Your task to perform on an android device: Clear all items from cart on ebay. Add "logitech g910" to the cart on ebay Image 0: 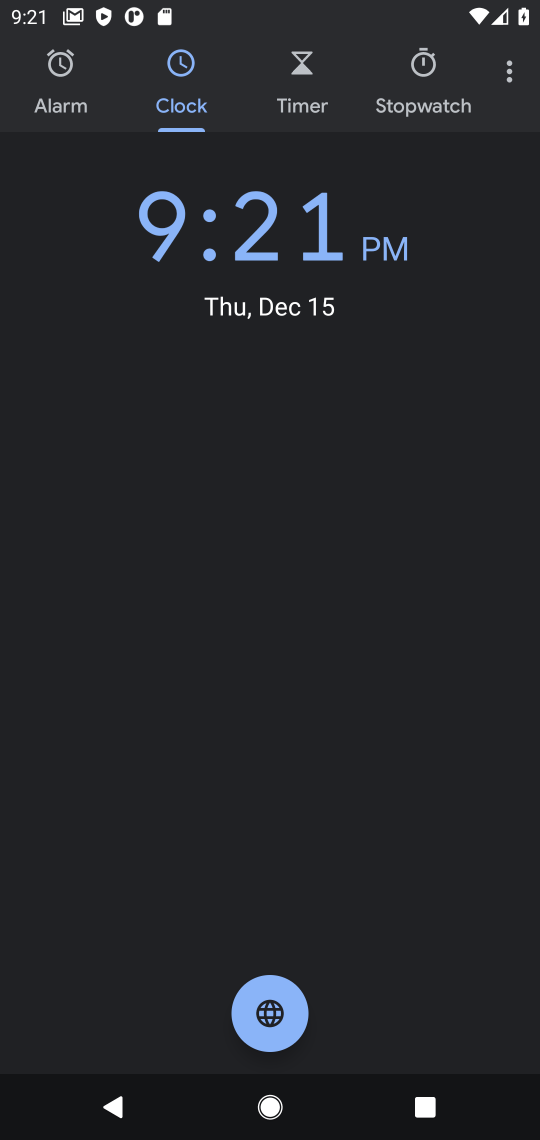
Step 0: press home button
Your task to perform on an android device: Clear all items from cart on ebay. Add "logitech g910" to the cart on ebay Image 1: 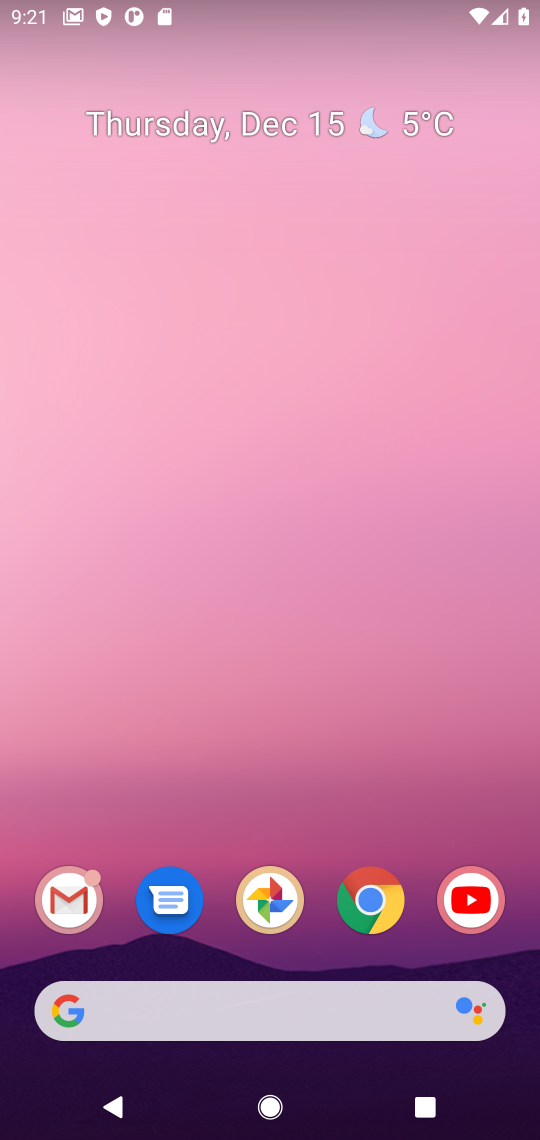
Step 1: click (399, 921)
Your task to perform on an android device: Clear all items from cart on ebay. Add "logitech g910" to the cart on ebay Image 2: 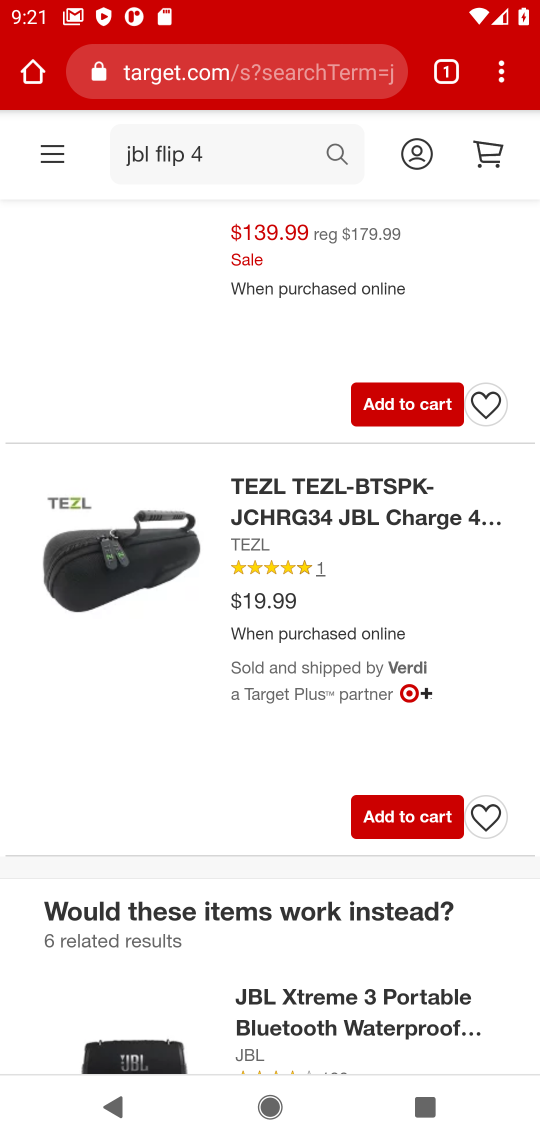
Step 2: click (191, 86)
Your task to perform on an android device: Clear all items from cart on ebay. Add "logitech g910" to the cart on ebay Image 3: 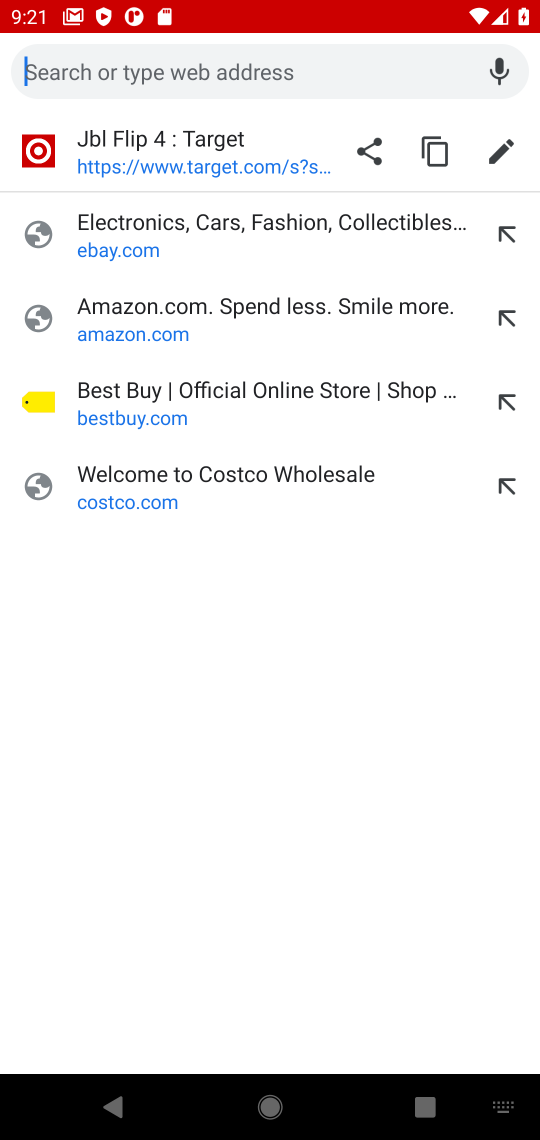
Step 3: click (129, 251)
Your task to perform on an android device: Clear all items from cart on ebay. Add "logitech g910" to the cart on ebay Image 4: 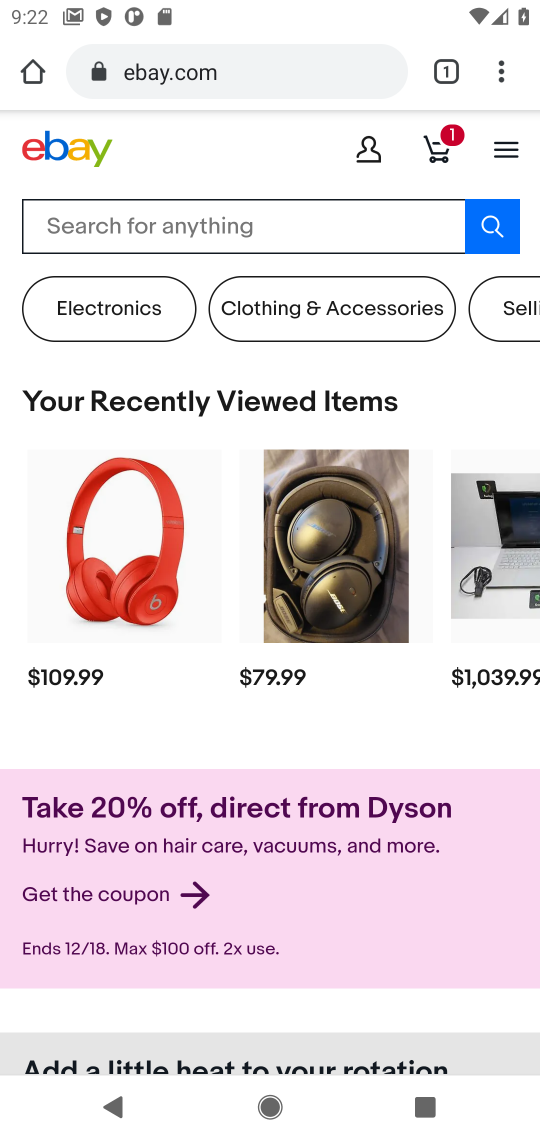
Step 4: click (256, 236)
Your task to perform on an android device: Clear all items from cart on ebay. Add "logitech g910" to the cart on ebay Image 5: 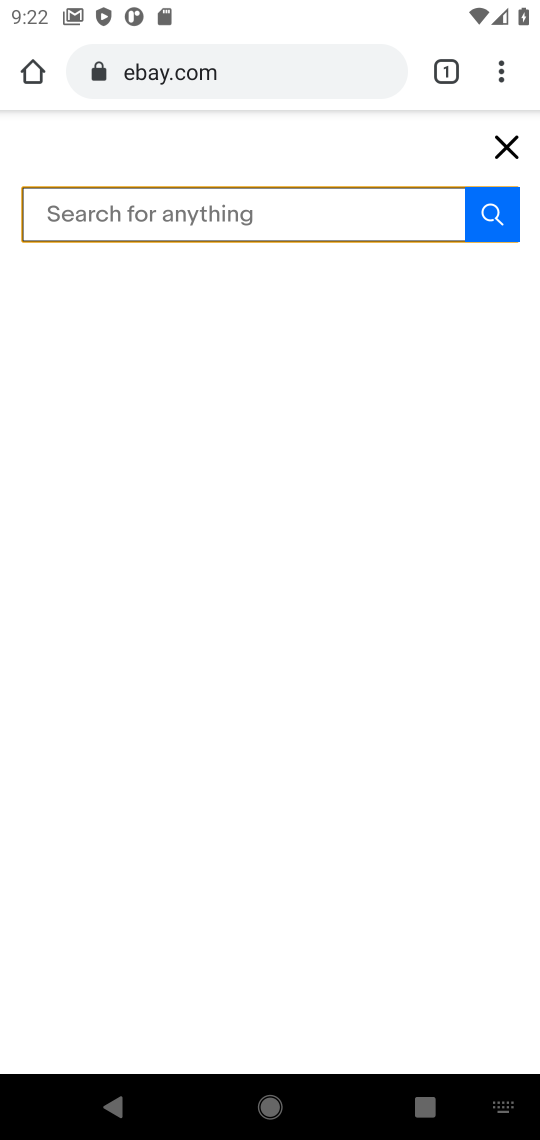
Step 5: click (218, 237)
Your task to perform on an android device: Clear all items from cart on ebay. Add "logitech g910" to the cart on ebay Image 6: 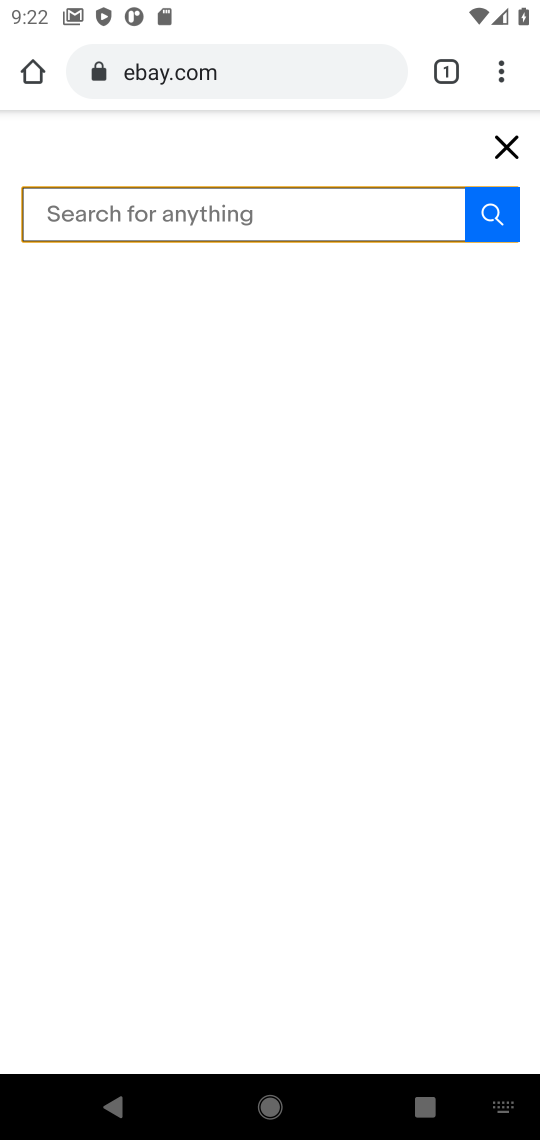
Step 6: type "logitech g910"
Your task to perform on an android device: Clear all items from cart on ebay. Add "logitech g910" to the cart on ebay Image 7: 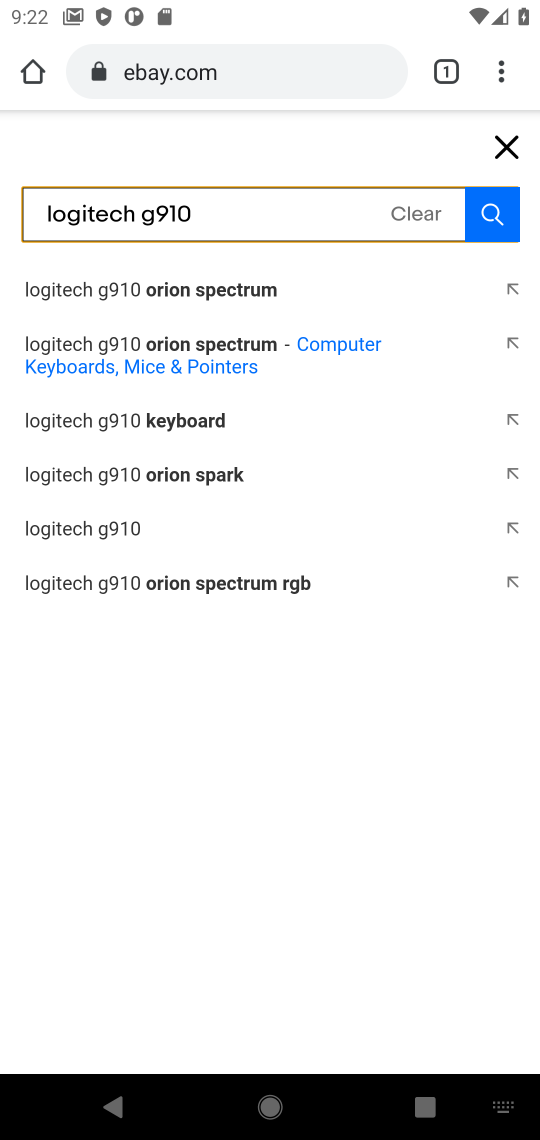
Step 7: click (487, 227)
Your task to perform on an android device: Clear all items from cart on ebay. Add "logitech g910" to the cart on ebay Image 8: 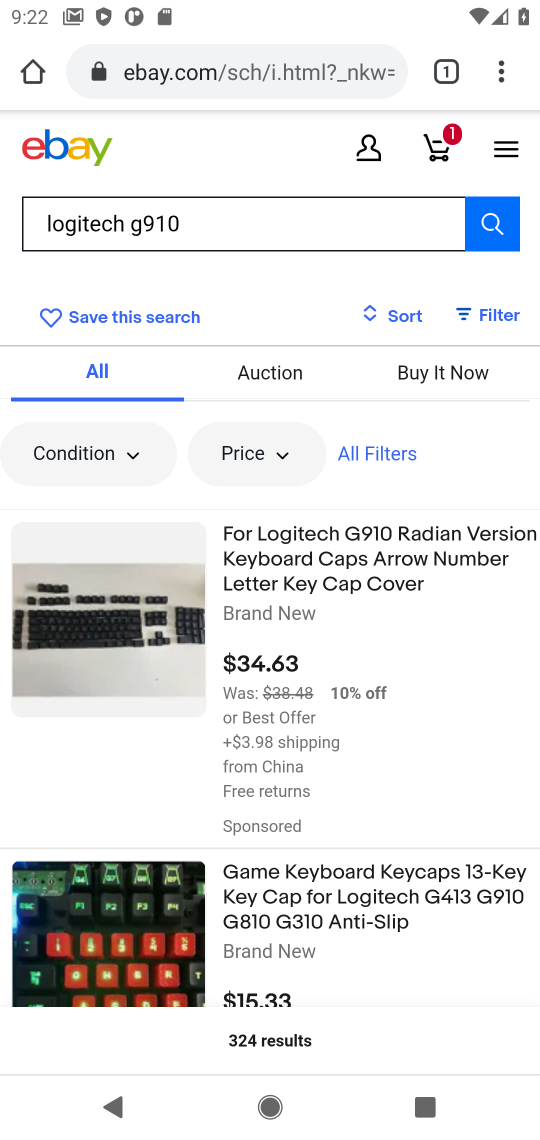
Step 8: click (311, 594)
Your task to perform on an android device: Clear all items from cart on ebay. Add "logitech g910" to the cart on ebay Image 9: 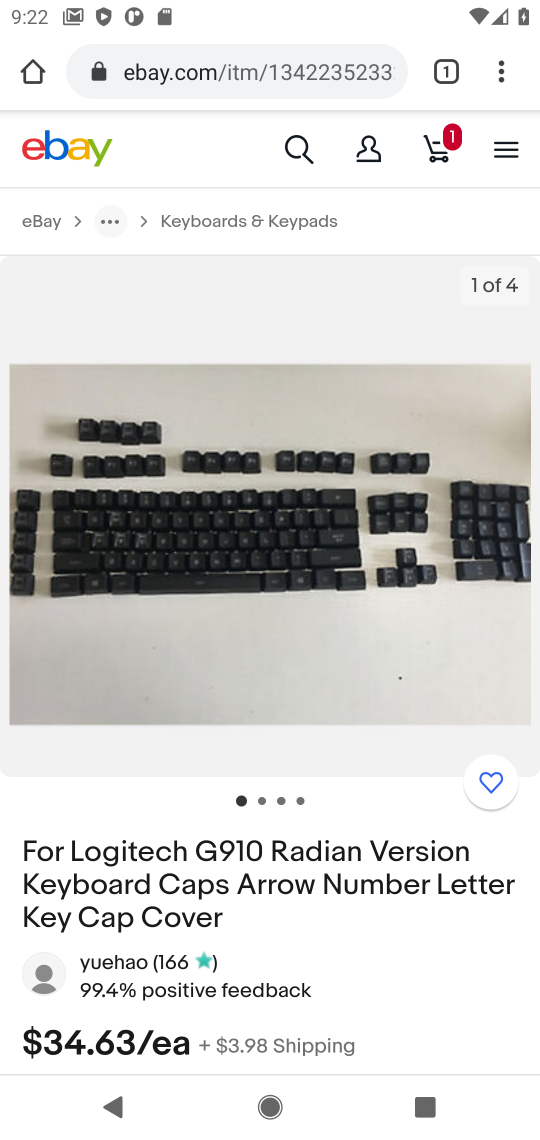
Step 9: task complete